Your task to perform on an android device: open wifi settings Image 0: 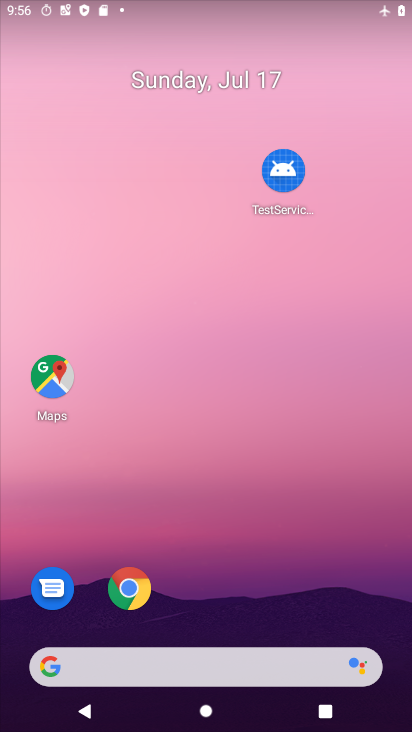
Step 0: drag from (266, 671) to (312, 191)
Your task to perform on an android device: open wifi settings Image 1: 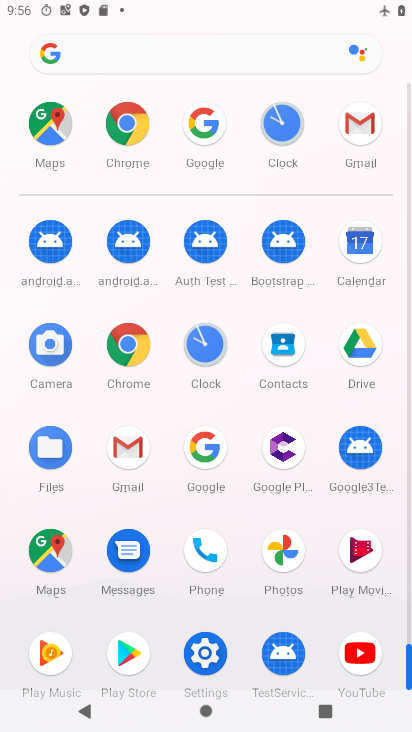
Step 1: drag from (223, 475) to (243, 273)
Your task to perform on an android device: open wifi settings Image 2: 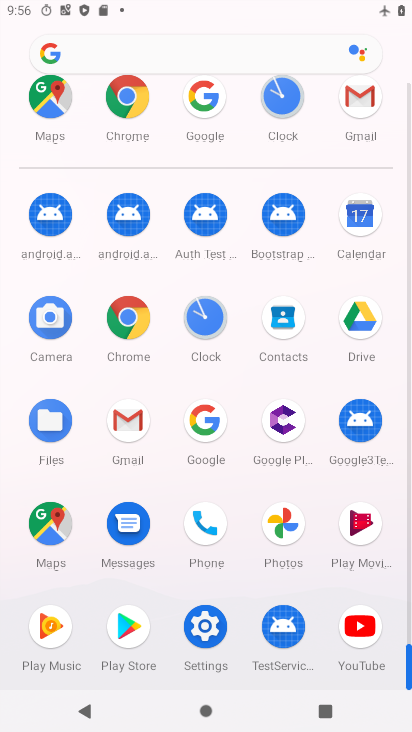
Step 2: click (213, 640)
Your task to perform on an android device: open wifi settings Image 3: 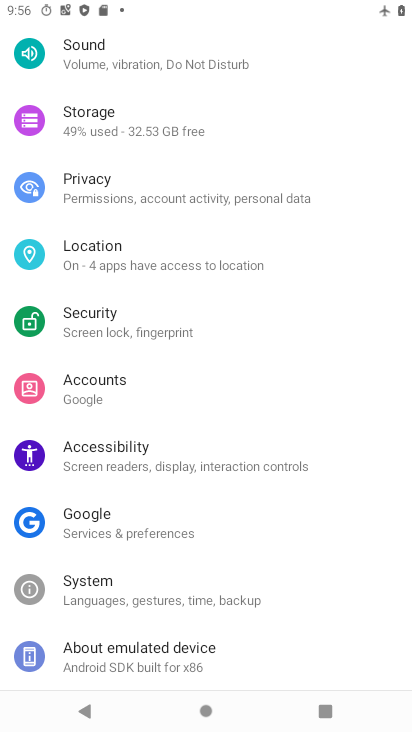
Step 3: drag from (153, 501) to (135, 605)
Your task to perform on an android device: open wifi settings Image 4: 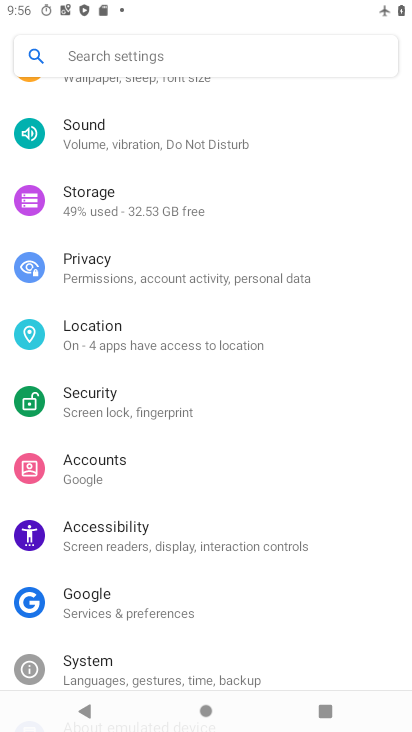
Step 4: drag from (118, 315) to (100, 645)
Your task to perform on an android device: open wifi settings Image 5: 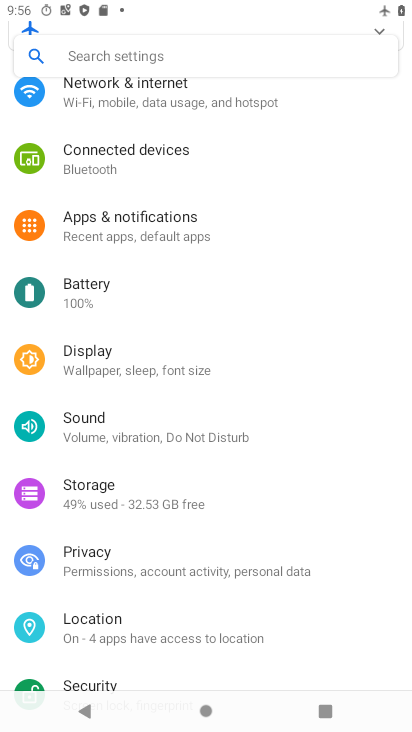
Step 5: drag from (100, 286) to (102, 634)
Your task to perform on an android device: open wifi settings Image 6: 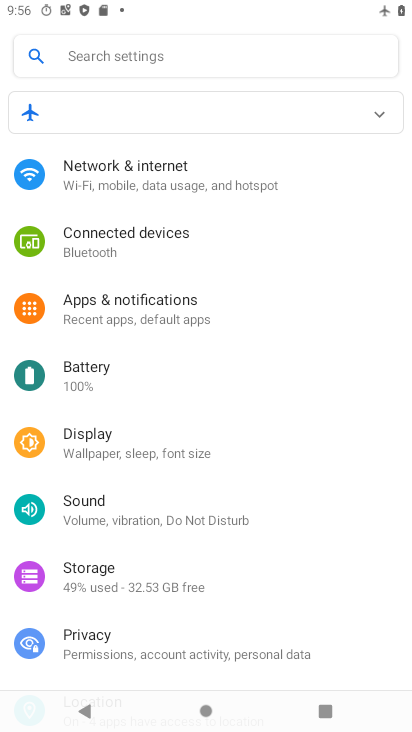
Step 6: click (150, 182)
Your task to perform on an android device: open wifi settings Image 7: 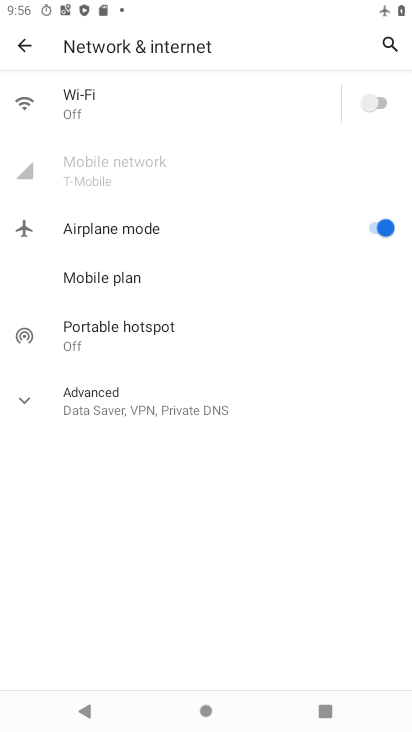
Step 7: click (144, 98)
Your task to perform on an android device: open wifi settings Image 8: 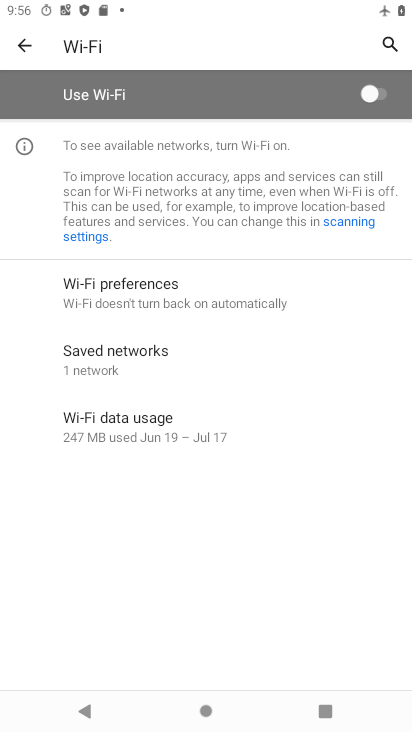
Step 8: task complete